Your task to perform on an android device: Find coffee shops on Maps Image 0: 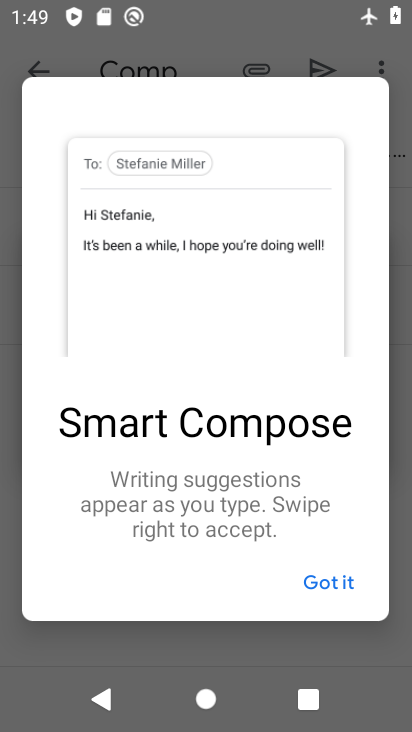
Step 0: press home button
Your task to perform on an android device: Find coffee shops on Maps Image 1: 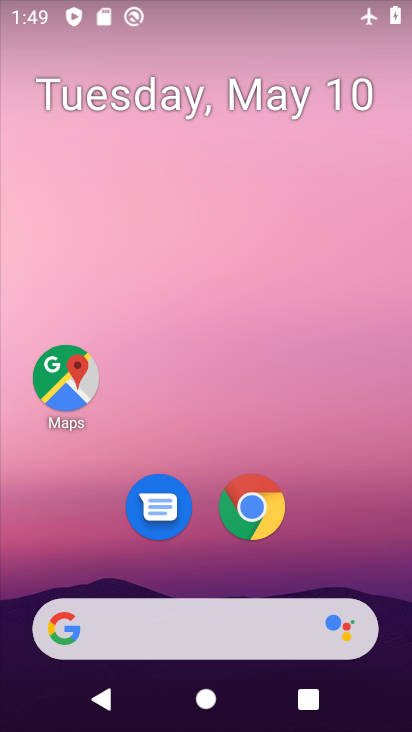
Step 1: click (73, 382)
Your task to perform on an android device: Find coffee shops on Maps Image 2: 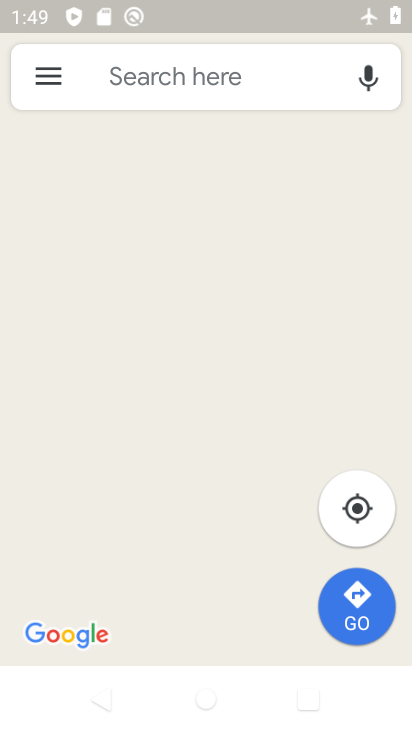
Step 2: click (235, 74)
Your task to perform on an android device: Find coffee shops on Maps Image 3: 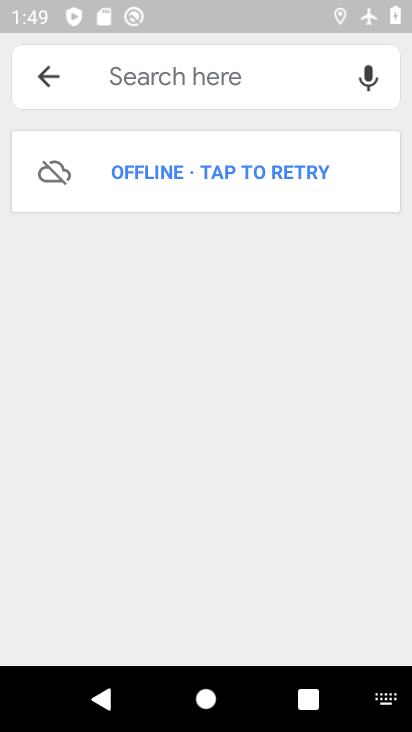
Step 3: type "coffee"
Your task to perform on an android device: Find coffee shops on Maps Image 4: 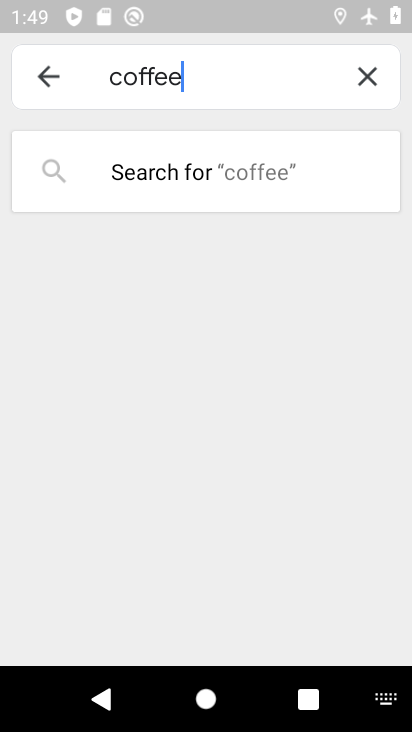
Step 4: click (192, 175)
Your task to perform on an android device: Find coffee shops on Maps Image 5: 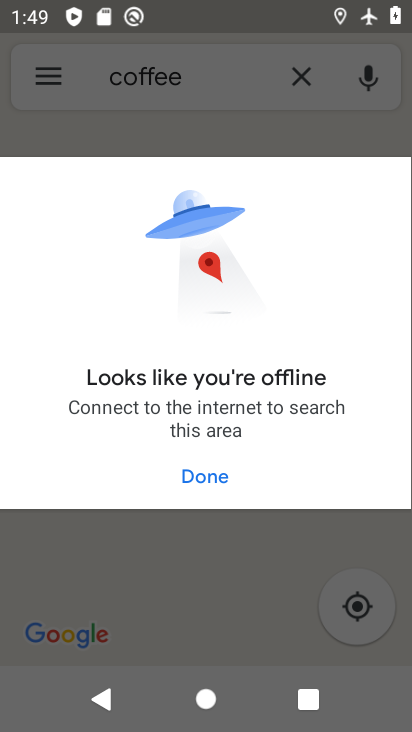
Step 5: click (191, 479)
Your task to perform on an android device: Find coffee shops on Maps Image 6: 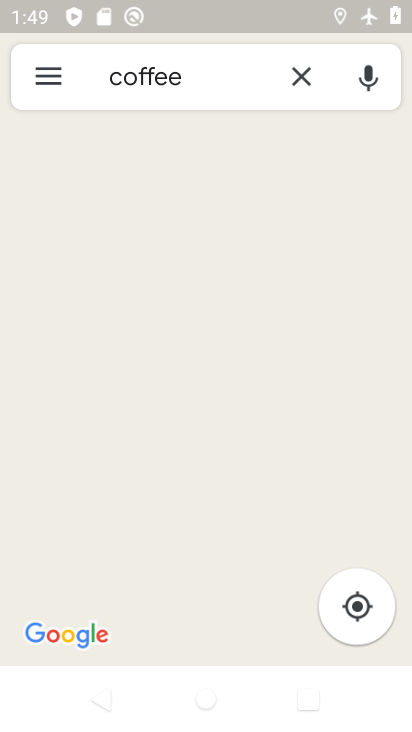
Step 6: task complete